Your task to perform on an android device: Open display settings Image 0: 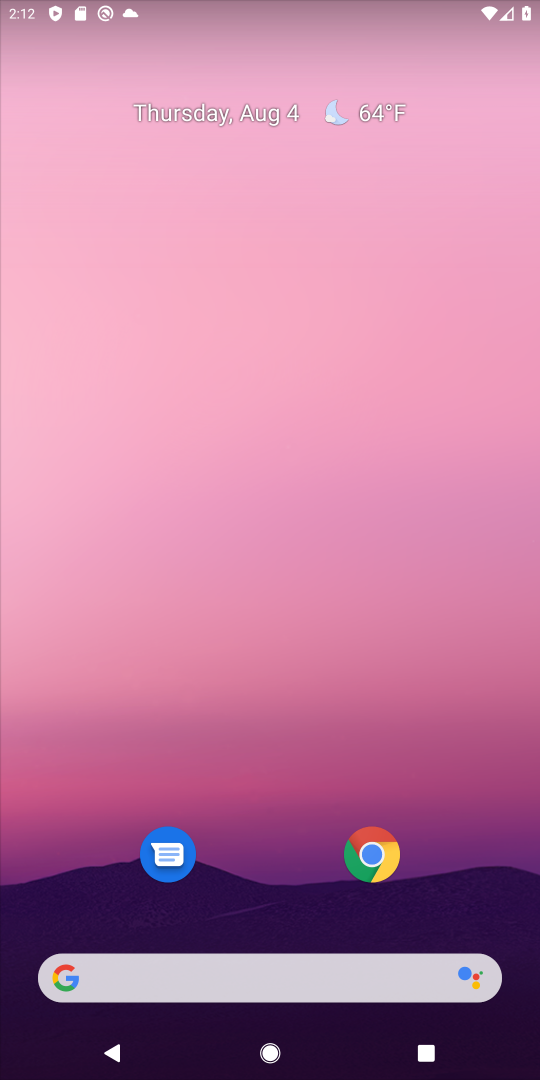
Step 0: drag from (281, 748) to (157, 25)
Your task to perform on an android device: Open display settings Image 1: 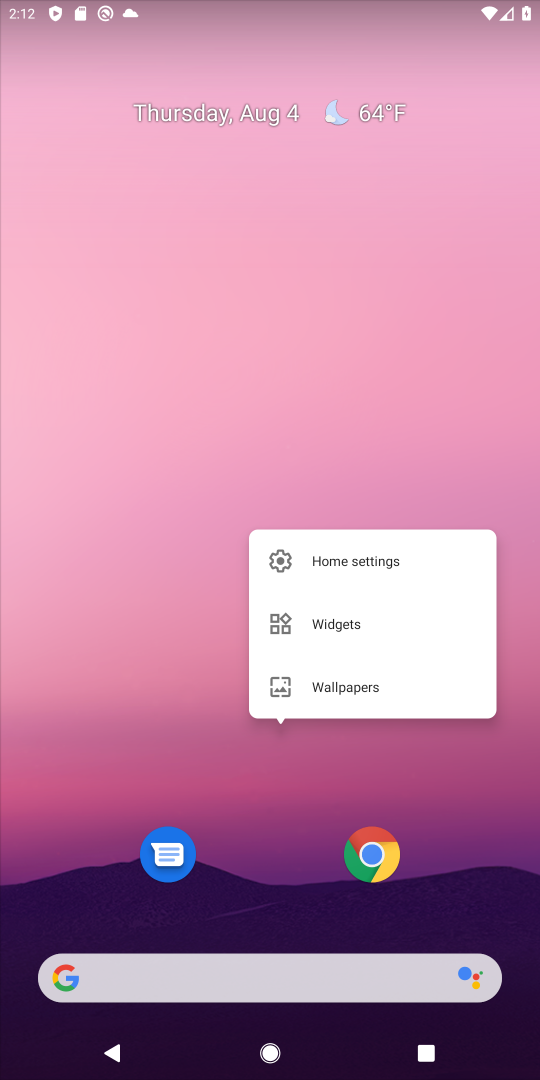
Step 1: click (206, 644)
Your task to perform on an android device: Open display settings Image 2: 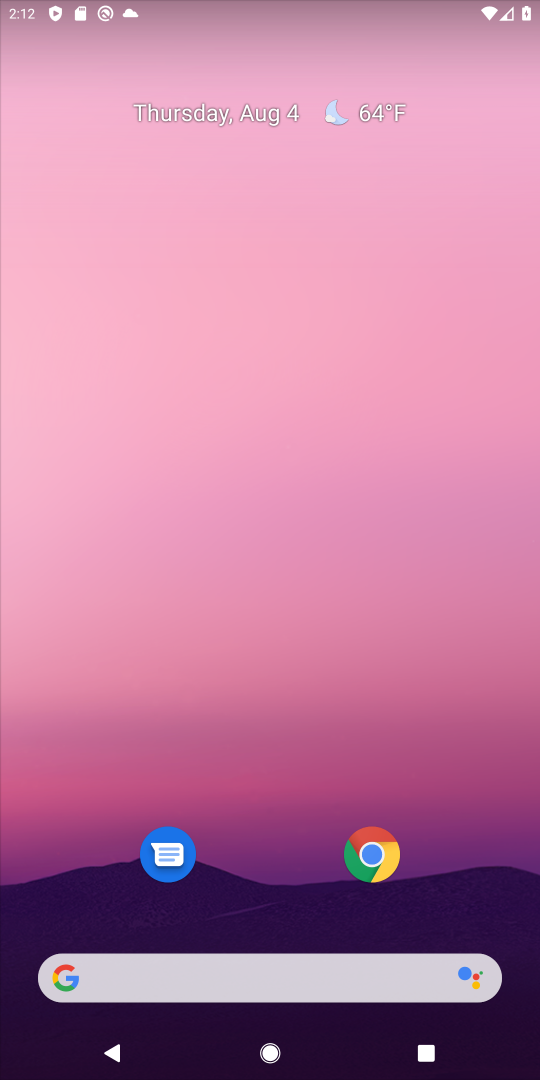
Step 2: drag from (247, 770) to (156, 176)
Your task to perform on an android device: Open display settings Image 3: 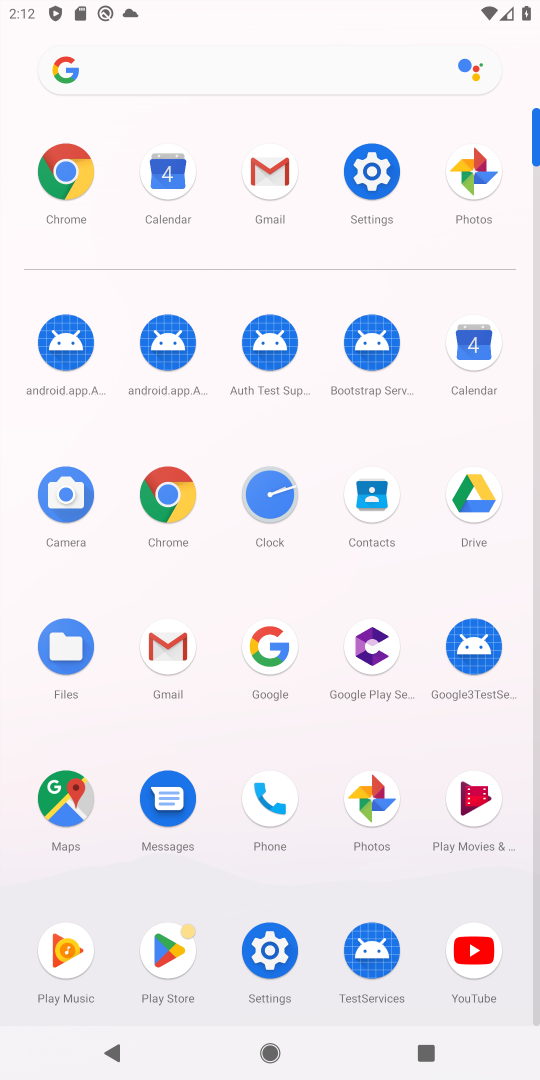
Step 3: click (362, 173)
Your task to perform on an android device: Open display settings Image 4: 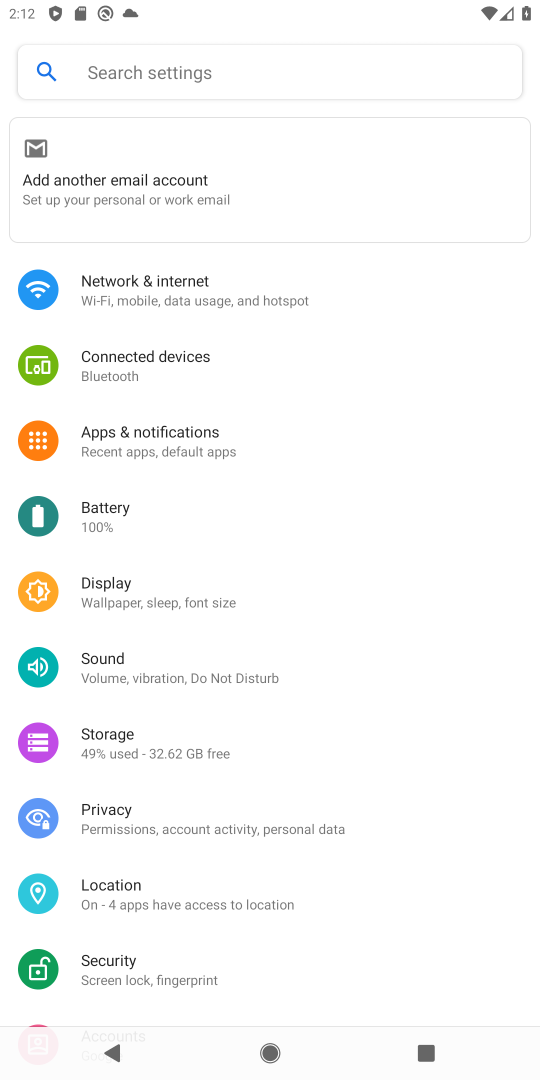
Step 4: task complete